Your task to perform on an android device: Is it going to rain tomorrow? Image 0: 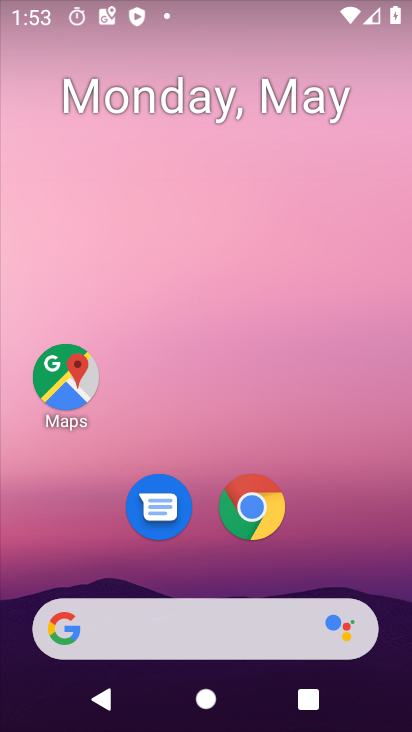
Step 0: drag from (352, 560) to (312, 190)
Your task to perform on an android device: Is it going to rain tomorrow? Image 1: 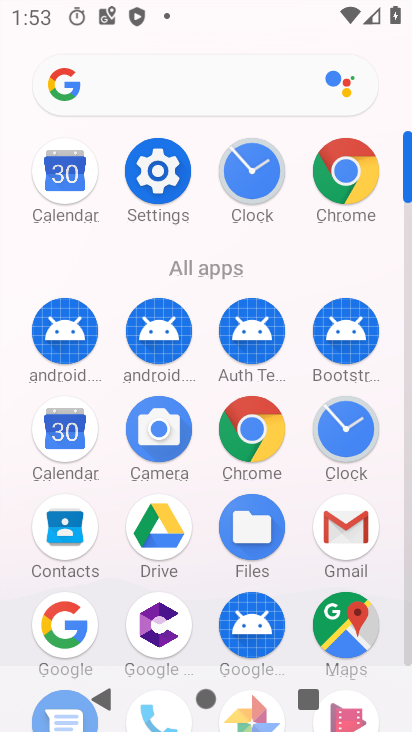
Step 1: click (267, 439)
Your task to perform on an android device: Is it going to rain tomorrow? Image 2: 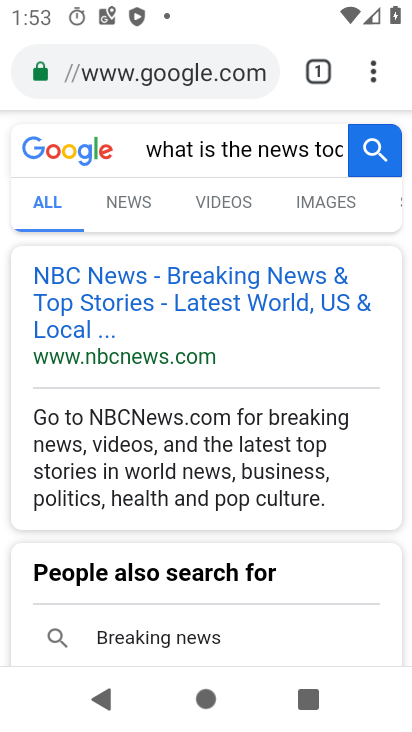
Step 2: click (231, 62)
Your task to perform on an android device: Is it going to rain tomorrow? Image 3: 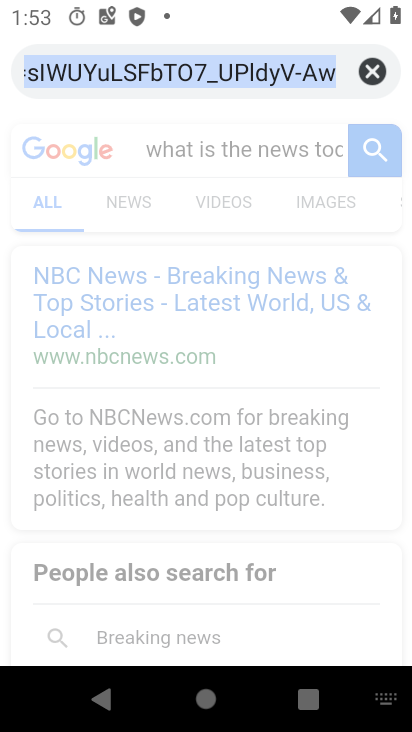
Step 3: click (358, 72)
Your task to perform on an android device: Is it going to rain tomorrow? Image 4: 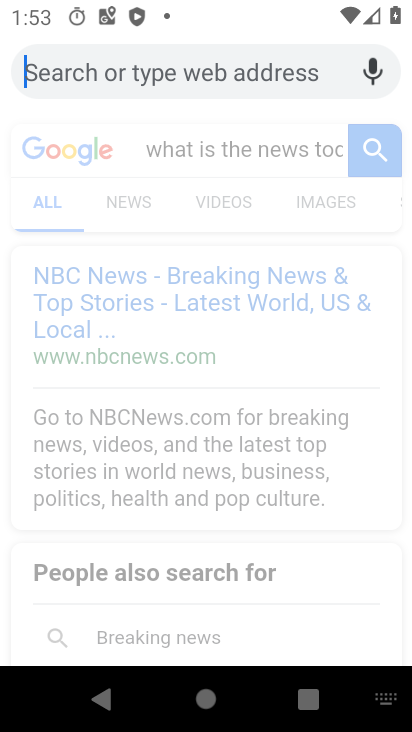
Step 4: type "is it going to rain tomorrow"
Your task to perform on an android device: Is it going to rain tomorrow? Image 5: 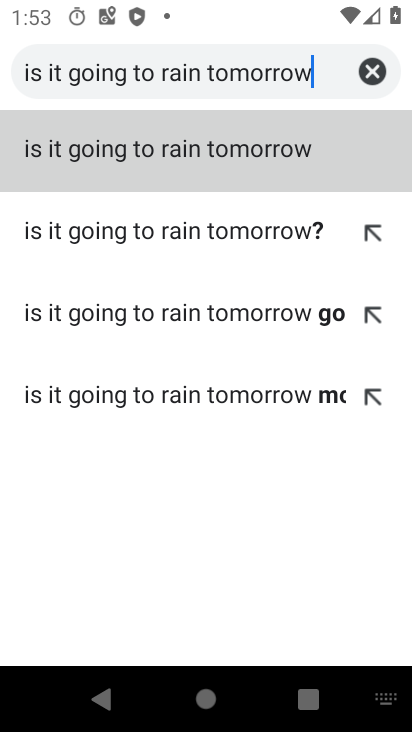
Step 5: click (91, 145)
Your task to perform on an android device: Is it going to rain tomorrow? Image 6: 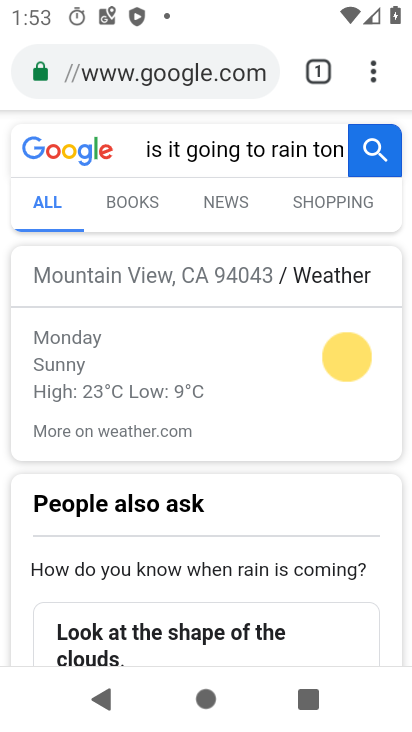
Step 6: task complete